Your task to perform on an android device: turn pop-ups on in chrome Image 0: 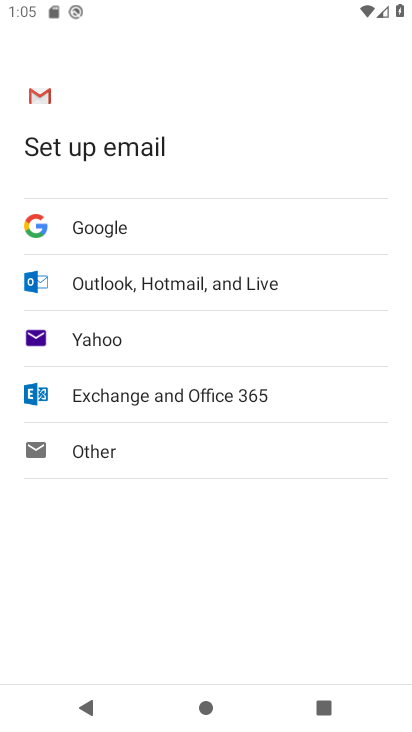
Step 0: press home button
Your task to perform on an android device: turn pop-ups on in chrome Image 1: 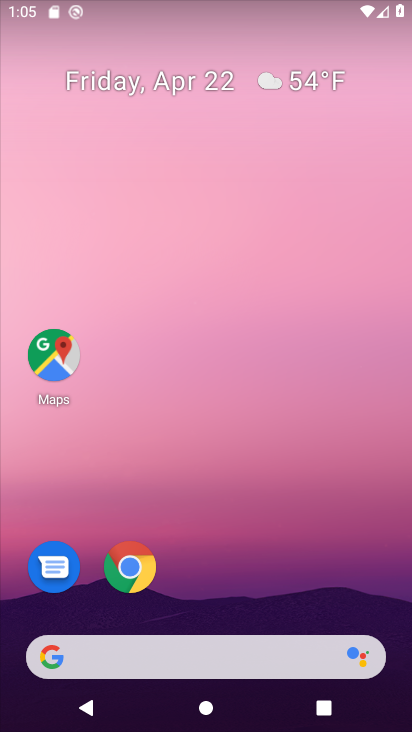
Step 1: drag from (249, 559) to (251, 212)
Your task to perform on an android device: turn pop-ups on in chrome Image 2: 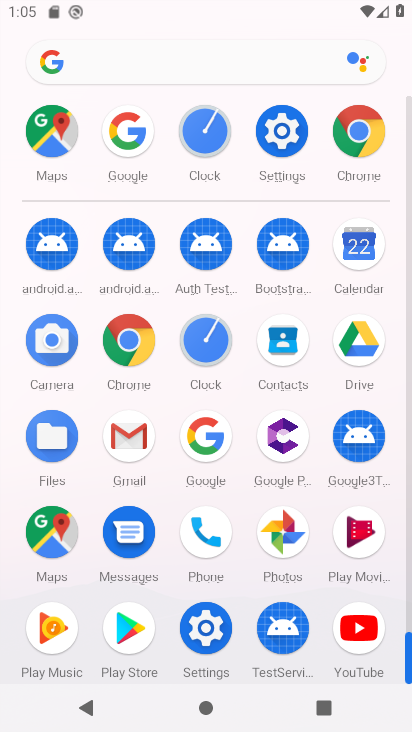
Step 2: click (354, 178)
Your task to perform on an android device: turn pop-ups on in chrome Image 3: 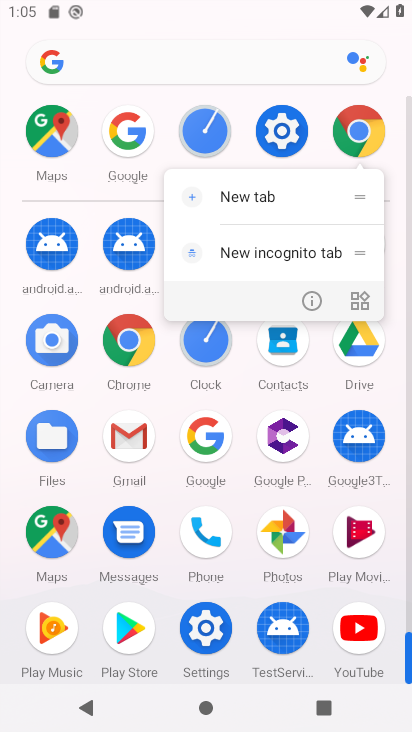
Step 3: click (362, 130)
Your task to perform on an android device: turn pop-ups on in chrome Image 4: 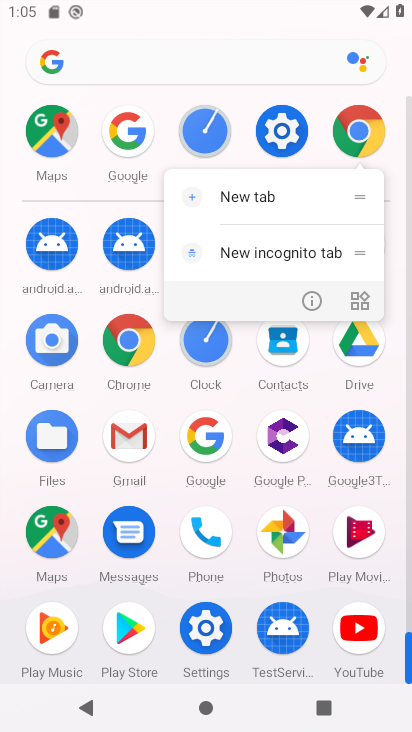
Step 4: click (363, 137)
Your task to perform on an android device: turn pop-ups on in chrome Image 5: 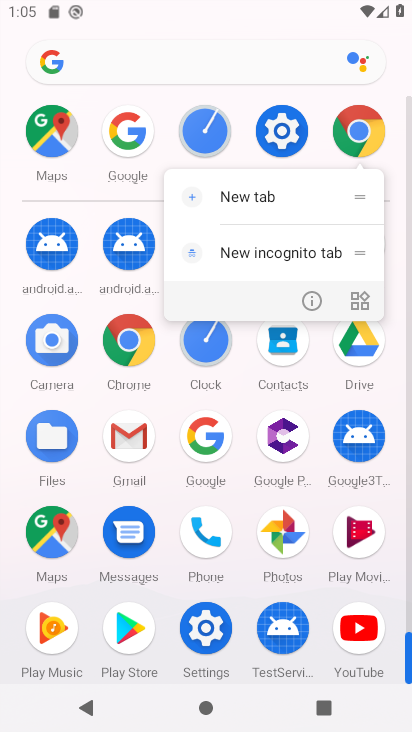
Step 5: click (363, 150)
Your task to perform on an android device: turn pop-ups on in chrome Image 6: 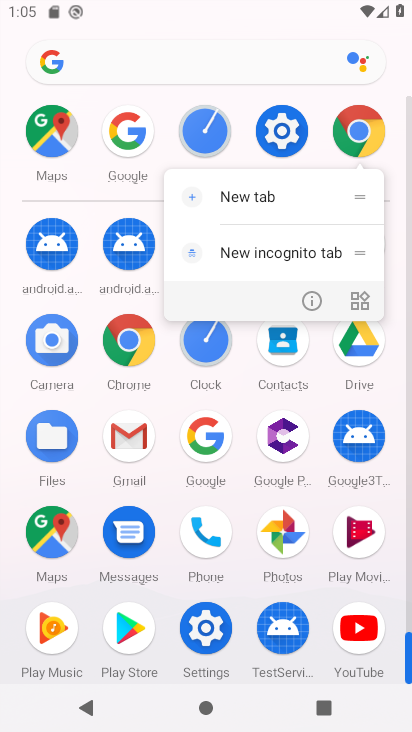
Step 6: click (363, 152)
Your task to perform on an android device: turn pop-ups on in chrome Image 7: 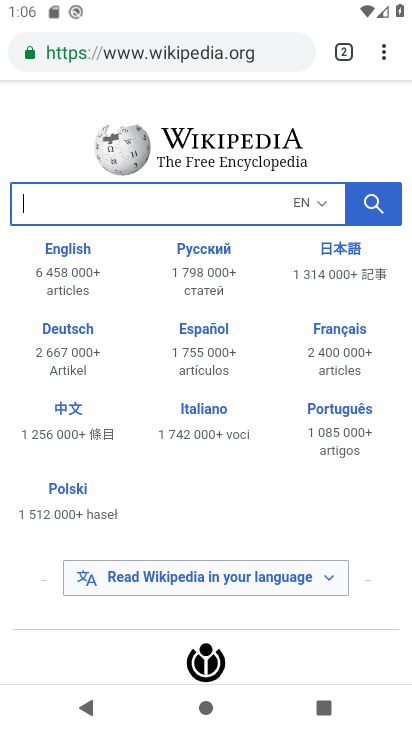
Step 7: click (385, 45)
Your task to perform on an android device: turn pop-ups on in chrome Image 8: 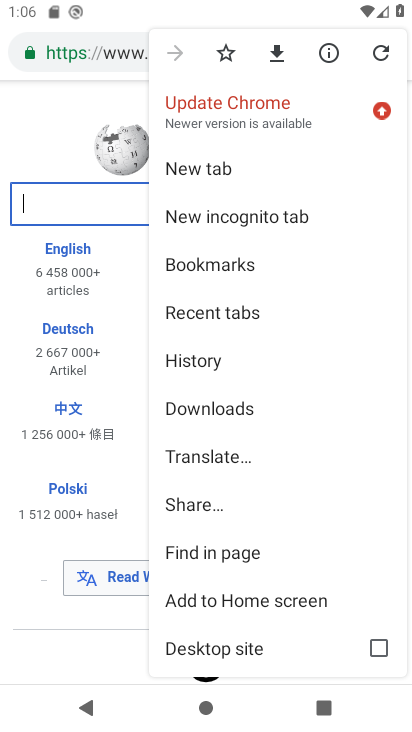
Step 8: drag from (239, 566) to (400, 8)
Your task to perform on an android device: turn pop-ups on in chrome Image 9: 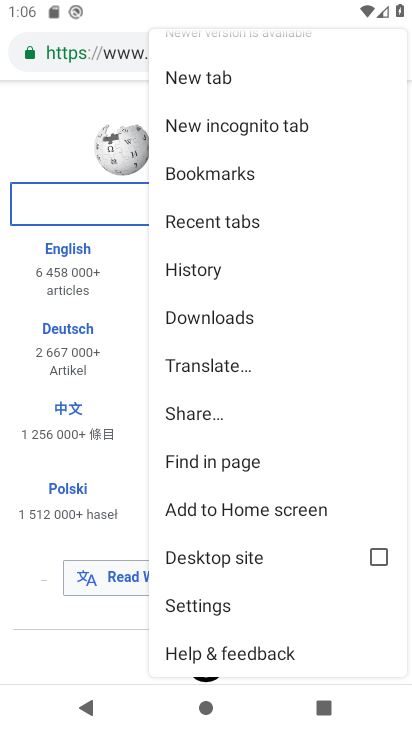
Step 9: click (227, 604)
Your task to perform on an android device: turn pop-ups on in chrome Image 10: 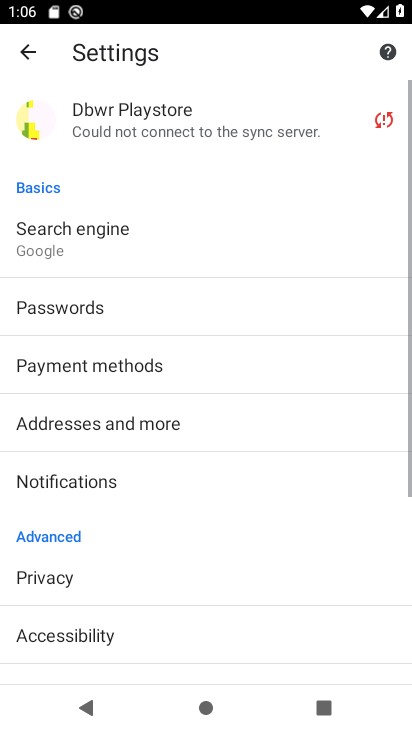
Step 10: drag from (248, 538) to (302, 200)
Your task to perform on an android device: turn pop-ups on in chrome Image 11: 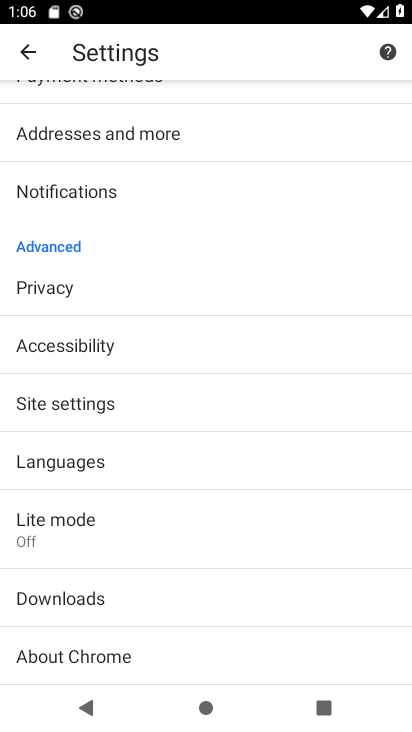
Step 11: click (143, 409)
Your task to perform on an android device: turn pop-ups on in chrome Image 12: 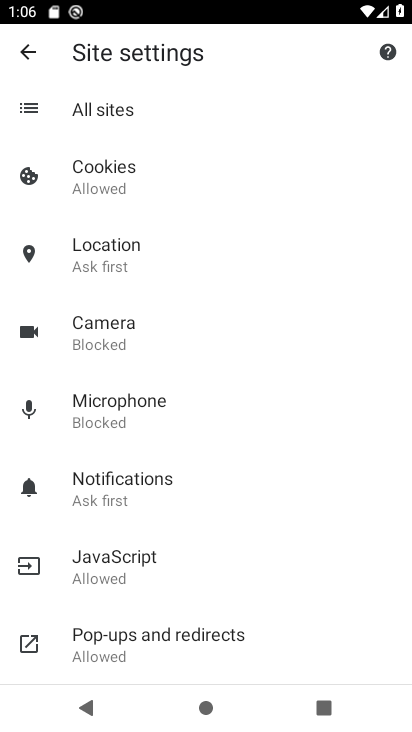
Step 12: click (200, 635)
Your task to perform on an android device: turn pop-ups on in chrome Image 13: 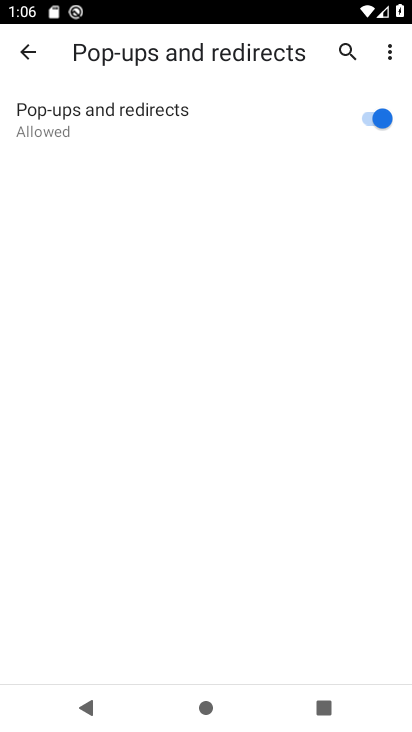
Step 13: task complete